Your task to perform on an android device: Do I have any events tomorrow? Image 0: 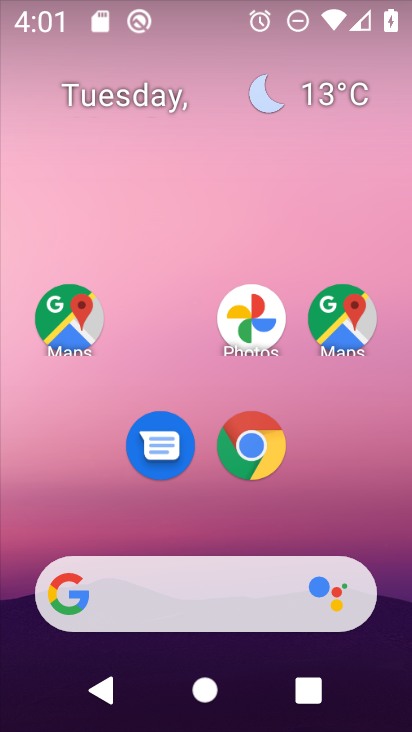
Step 0: drag from (382, 561) to (374, 254)
Your task to perform on an android device: Do I have any events tomorrow? Image 1: 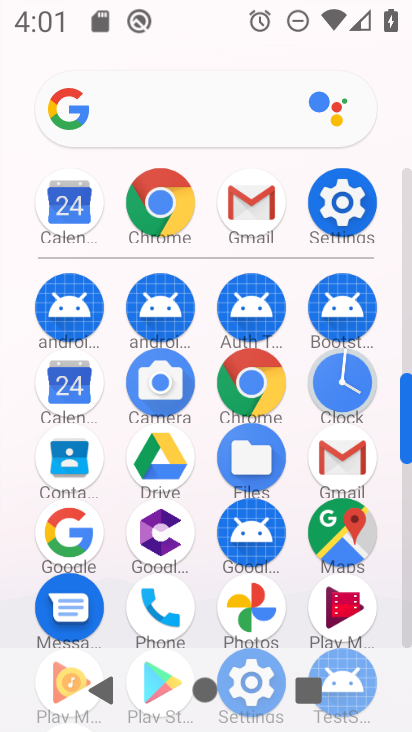
Step 1: click (69, 408)
Your task to perform on an android device: Do I have any events tomorrow? Image 2: 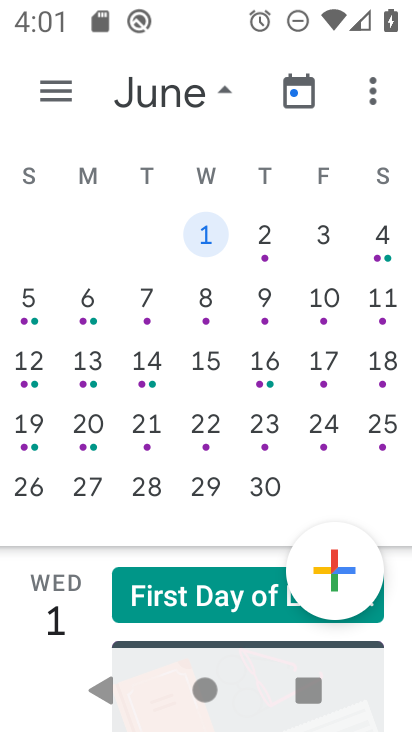
Step 2: click (22, 203)
Your task to perform on an android device: Do I have any events tomorrow? Image 3: 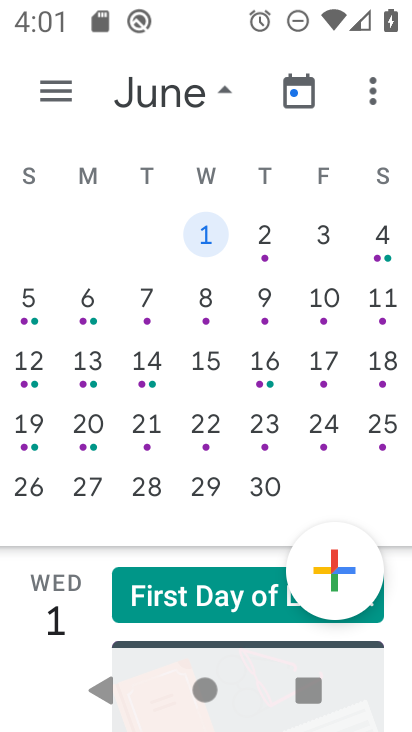
Step 3: drag from (154, 210) to (398, 254)
Your task to perform on an android device: Do I have any events tomorrow? Image 4: 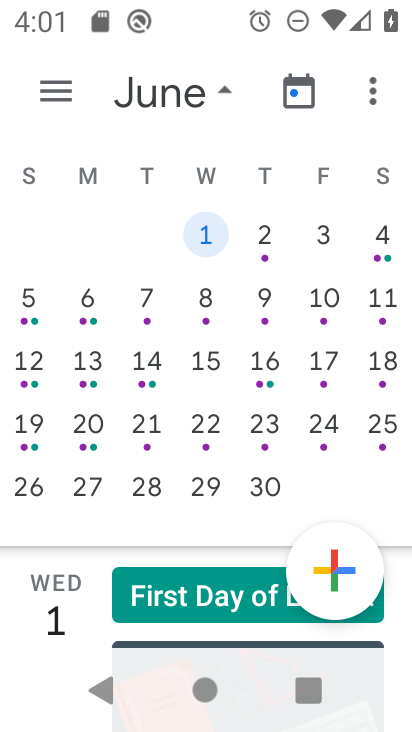
Step 4: drag from (81, 202) to (378, 216)
Your task to perform on an android device: Do I have any events tomorrow? Image 5: 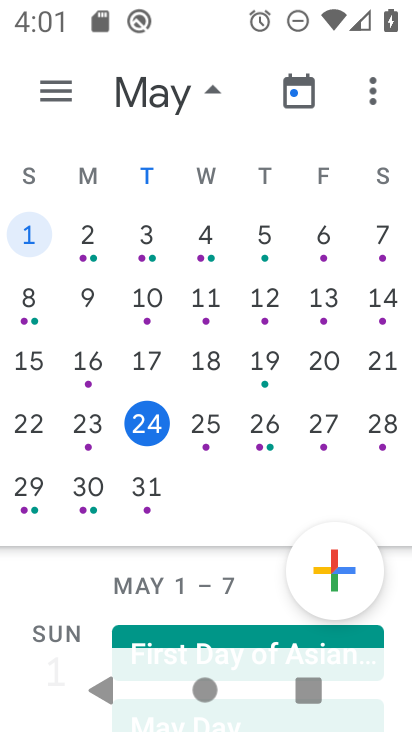
Step 5: drag from (206, 211) to (302, 210)
Your task to perform on an android device: Do I have any events tomorrow? Image 6: 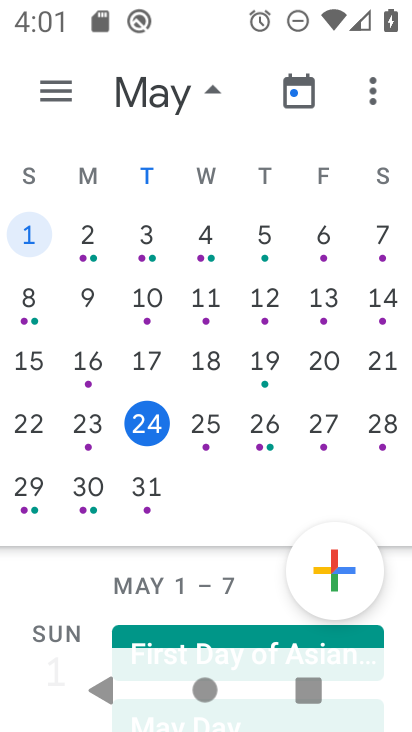
Step 6: click (207, 424)
Your task to perform on an android device: Do I have any events tomorrow? Image 7: 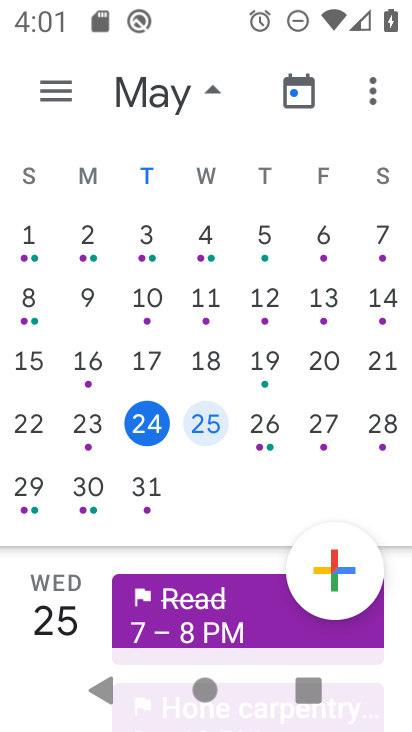
Step 7: drag from (260, 501) to (242, 248)
Your task to perform on an android device: Do I have any events tomorrow? Image 8: 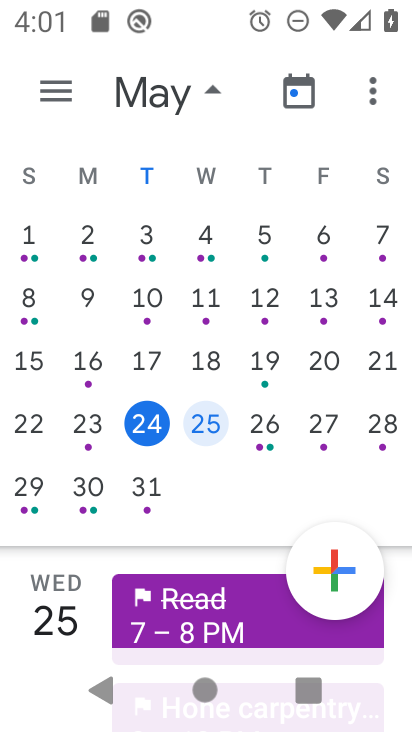
Step 8: drag from (211, 603) to (230, 356)
Your task to perform on an android device: Do I have any events tomorrow? Image 9: 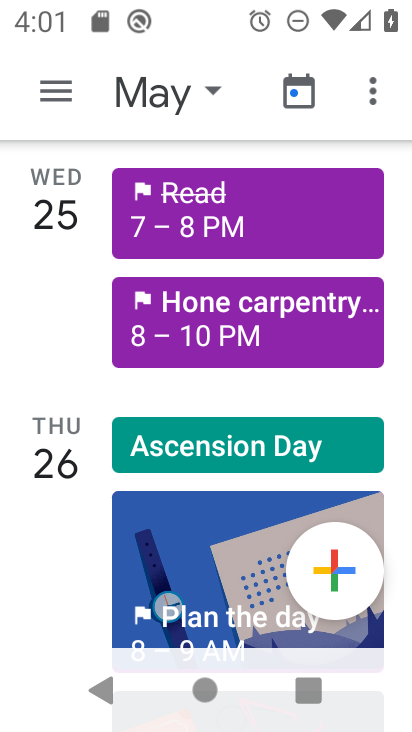
Step 9: click (241, 324)
Your task to perform on an android device: Do I have any events tomorrow? Image 10: 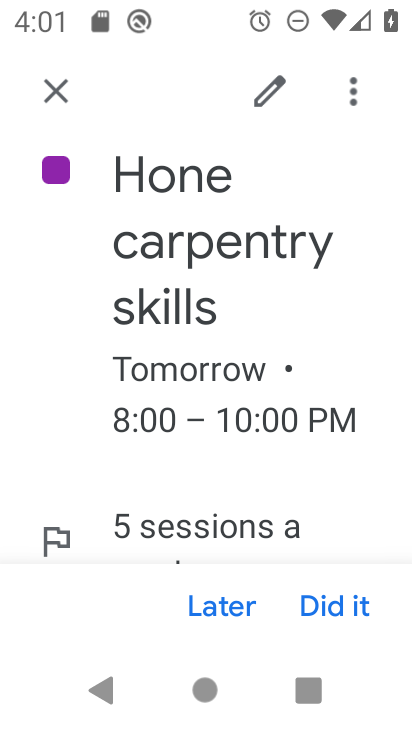
Step 10: task complete